Your task to perform on an android device: Check the news Image 0: 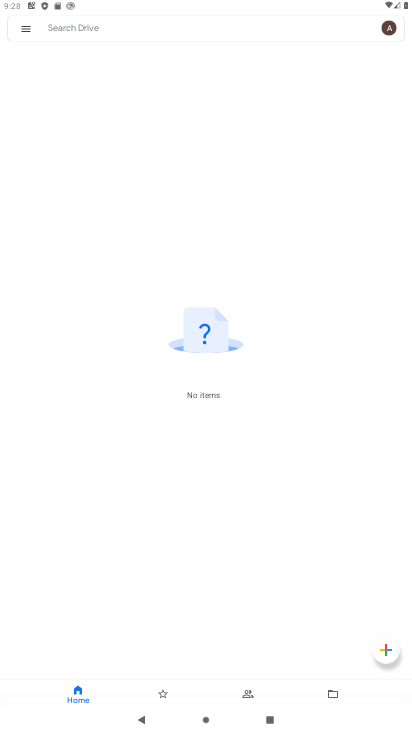
Step 0: press home button
Your task to perform on an android device: Check the news Image 1: 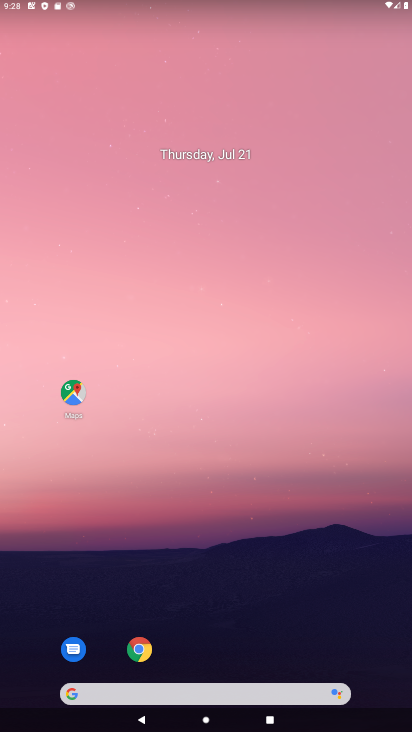
Step 1: drag from (217, 665) to (232, 17)
Your task to perform on an android device: Check the news Image 2: 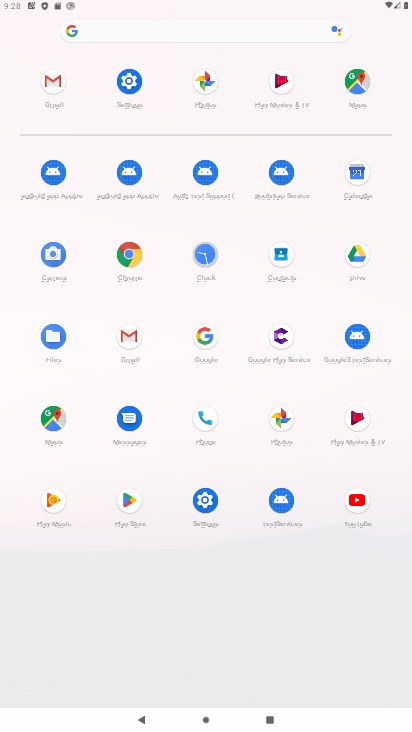
Step 2: click (158, 35)
Your task to perform on an android device: Check the news Image 3: 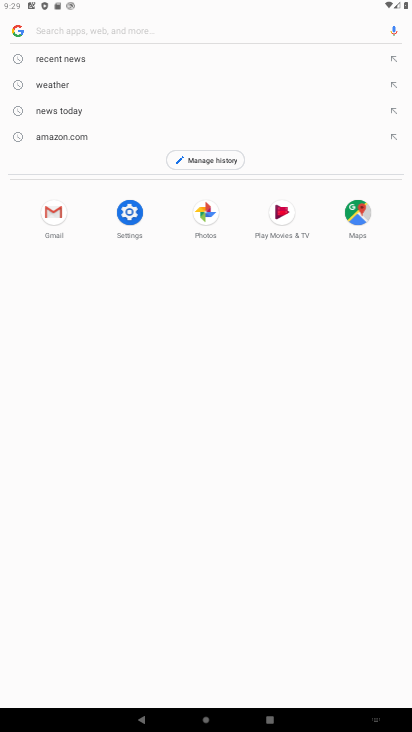
Step 3: type "news"
Your task to perform on an android device: Check the news Image 4: 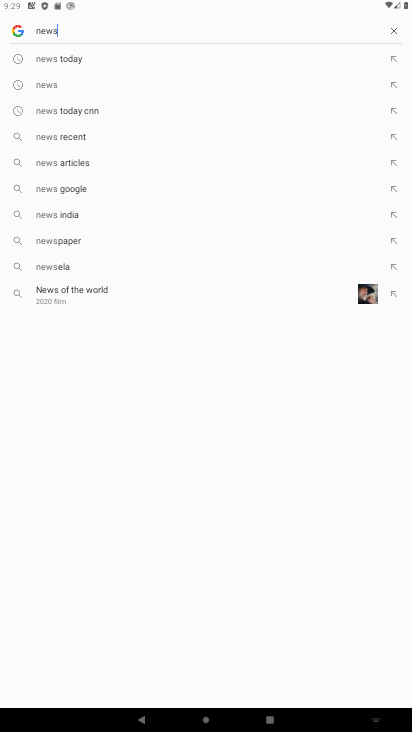
Step 4: click (63, 96)
Your task to perform on an android device: Check the news Image 5: 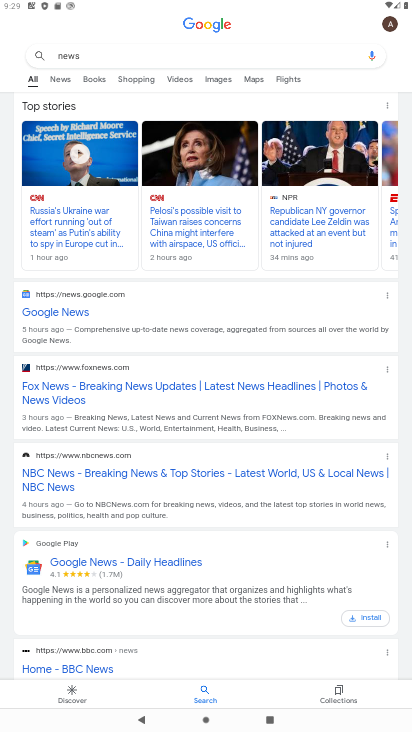
Step 5: task complete